Your task to perform on an android device: Open the calendar app, open the side menu, and click the "Day" option Image 0: 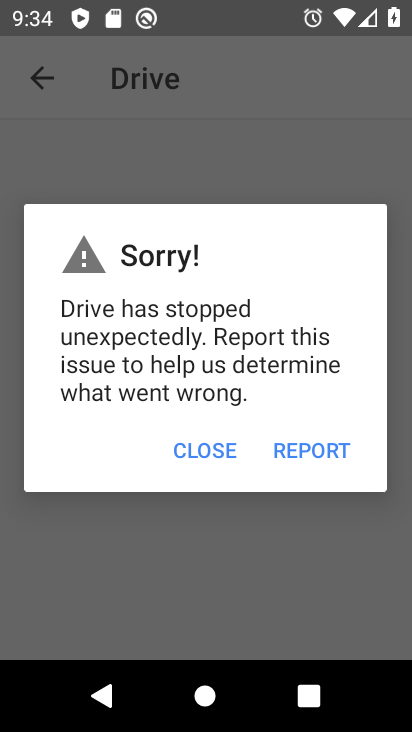
Step 0: press home button
Your task to perform on an android device: Open the calendar app, open the side menu, and click the "Day" option Image 1: 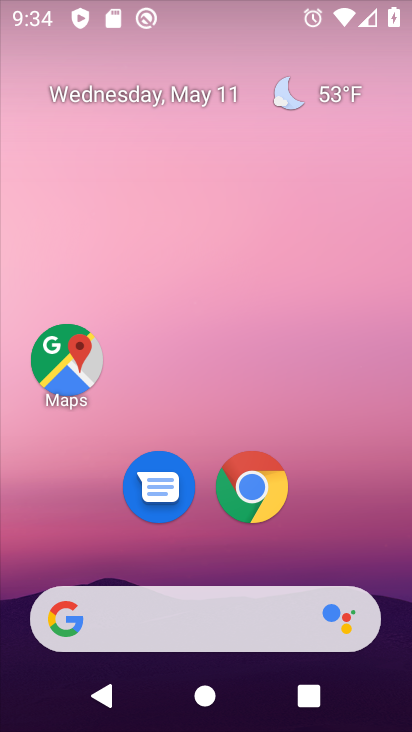
Step 1: drag from (200, 448) to (217, 263)
Your task to perform on an android device: Open the calendar app, open the side menu, and click the "Day" option Image 2: 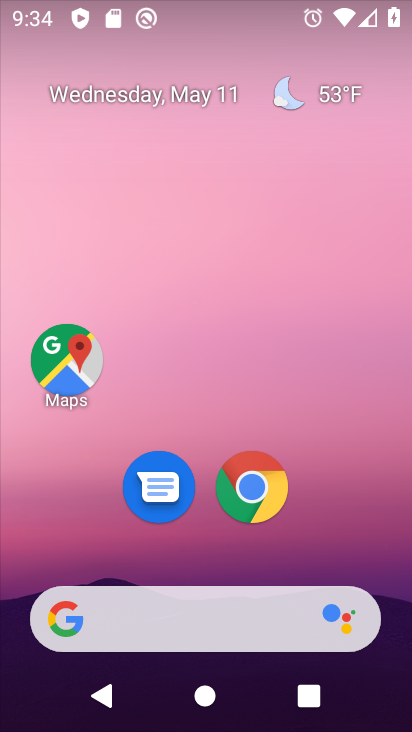
Step 2: drag from (195, 561) to (195, 217)
Your task to perform on an android device: Open the calendar app, open the side menu, and click the "Day" option Image 3: 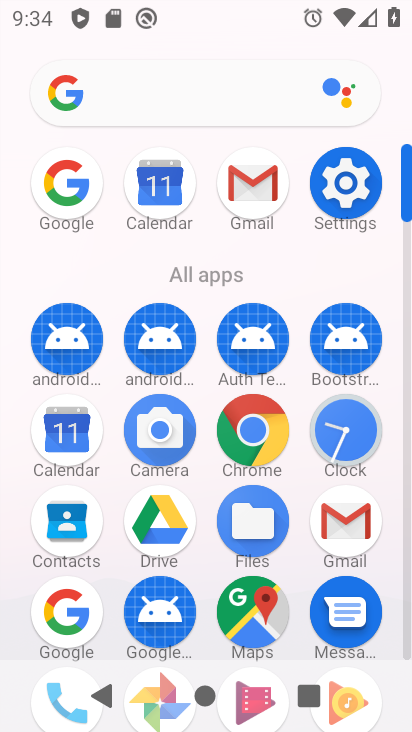
Step 3: click (162, 219)
Your task to perform on an android device: Open the calendar app, open the side menu, and click the "Day" option Image 4: 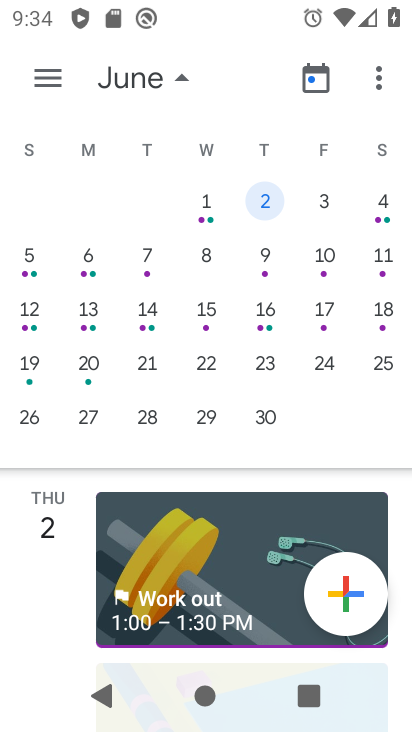
Step 4: click (50, 72)
Your task to perform on an android device: Open the calendar app, open the side menu, and click the "Day" option Image 5: 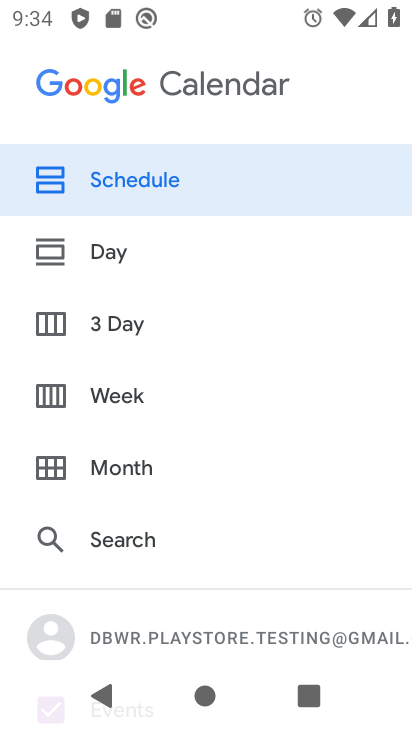
Step 5: click (160, 244)
Your task to perform on an android device: Open the calendar app, open the side menu, and click the "Day" option Image 6: 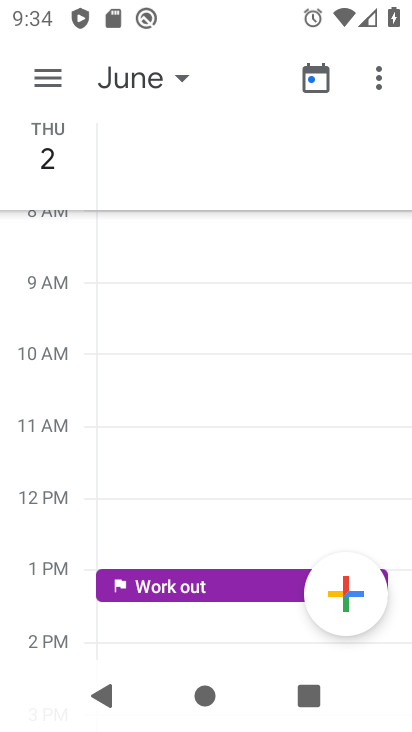
Step 6: task complete